Your task to perform on an android device: open app "Truecaller" Image 0: 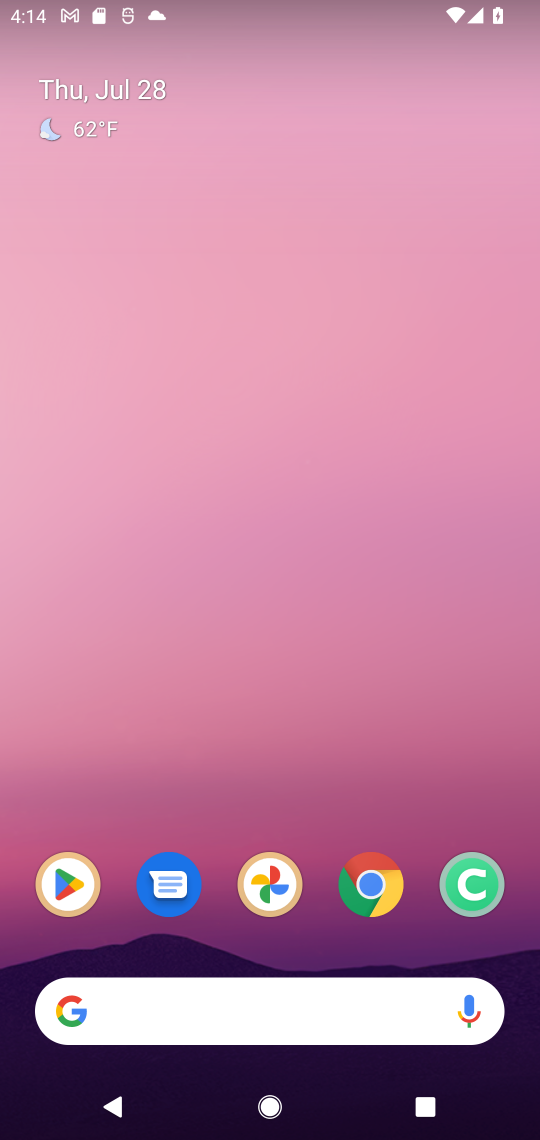
Step 0: click (53, 894)
Your task to perform on an android device: open app "Truecaller" Image 1: 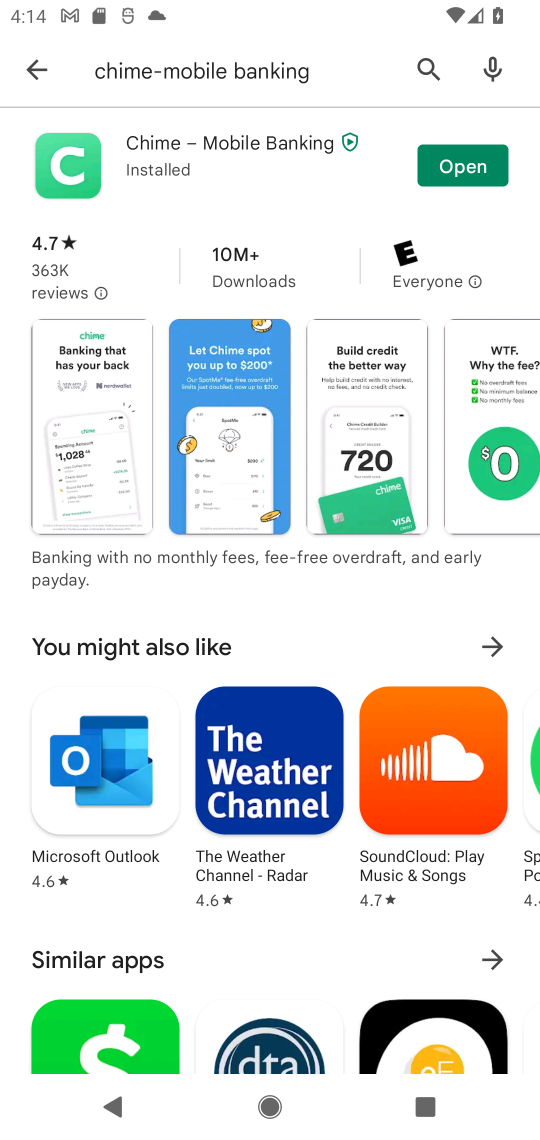
Step 1: click (421, 73)
Your task to perform on an android device: open app "Truecaller" Image 2: 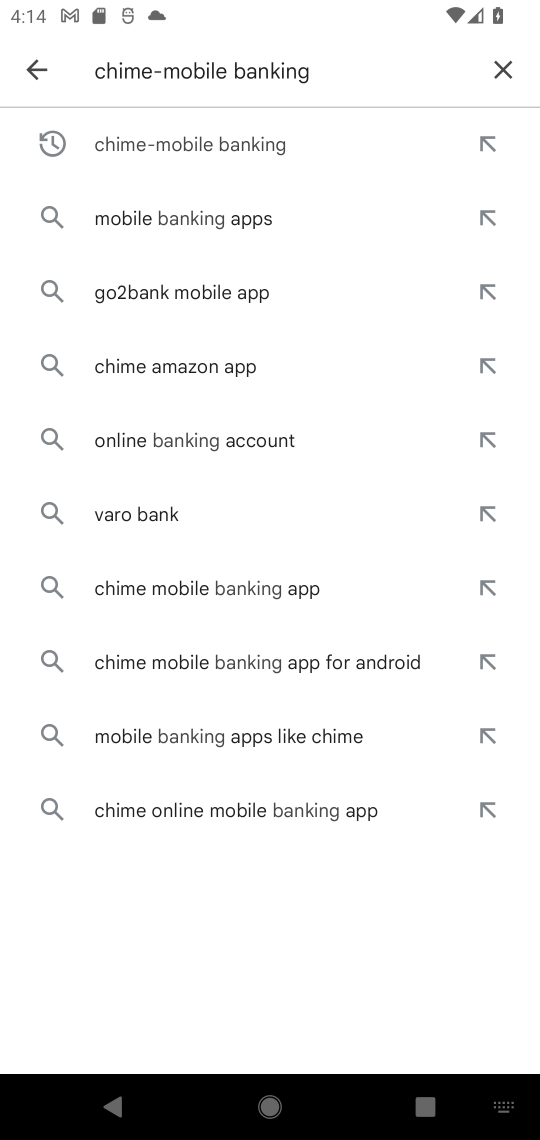
Step 2: click (426, 66)
Your task to perform on an android device: open app "Truecaller" Image 3: 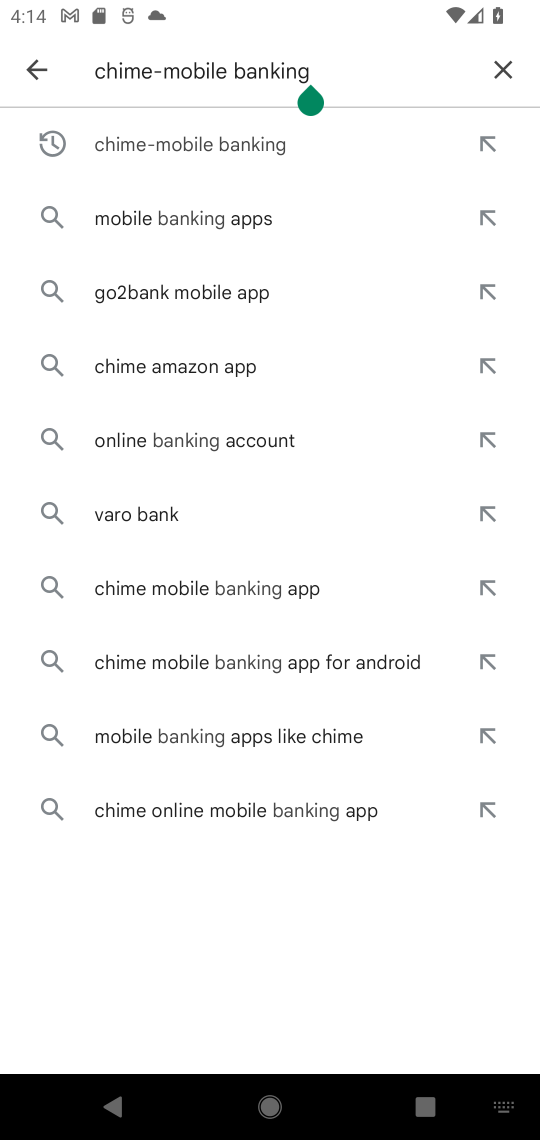
Step 3: click (500, 68)
Your task to perform on an android device: open app "Truecaller" Image 4: 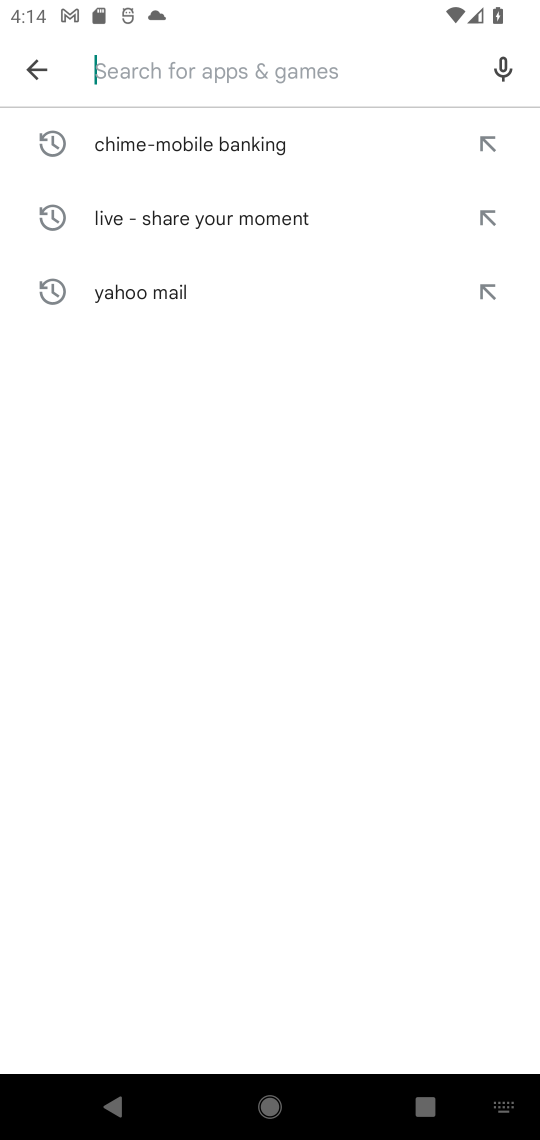
Step 4: type "true caller"
Your task to perform on an android device: open app "Truecaller" Image 5: 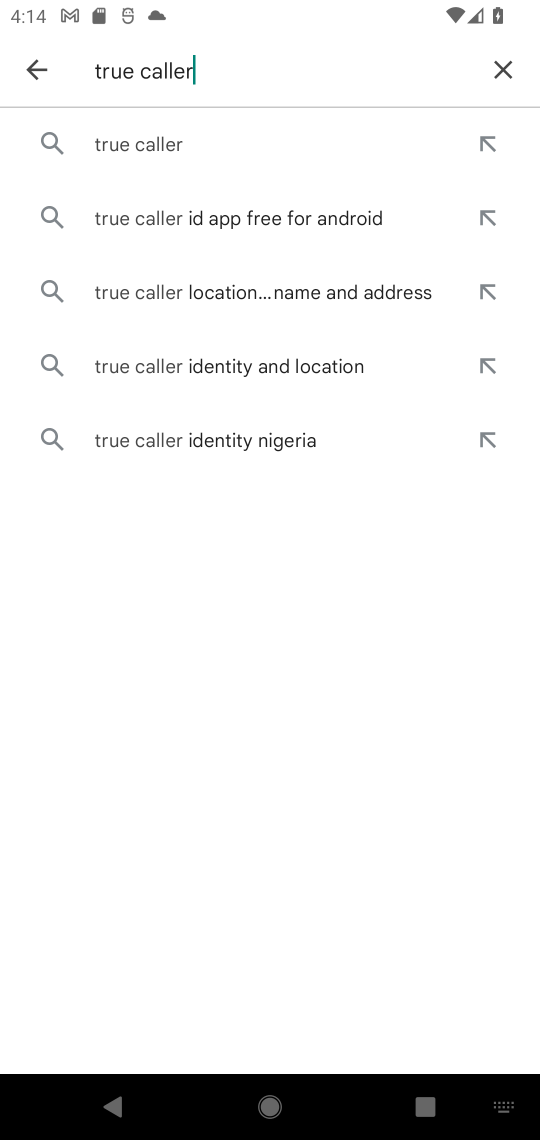
Step 5: click (274, 145)
Your task to perform on an android device: open app "Truecaller" Image 6: 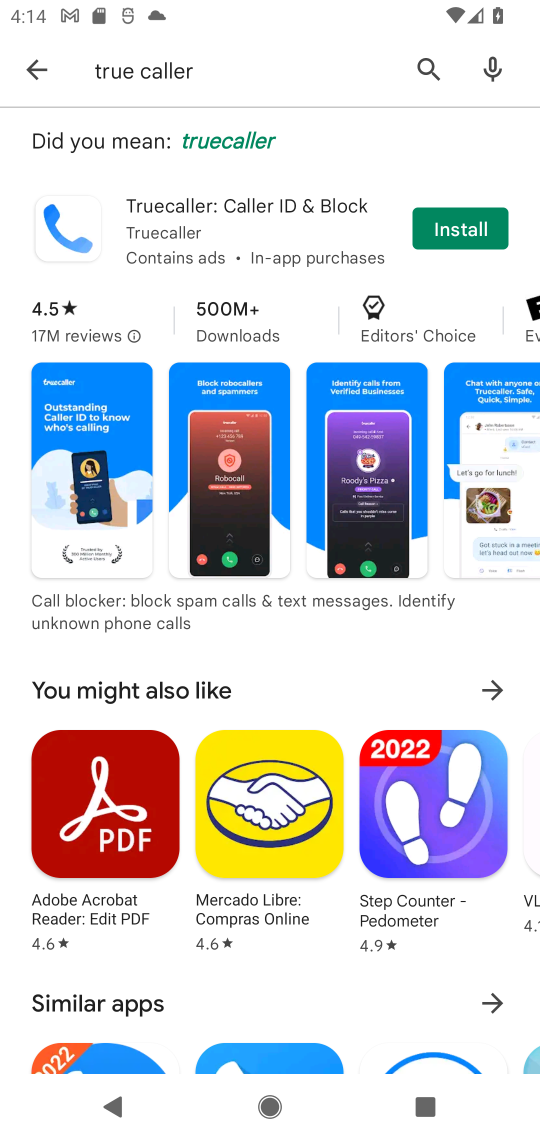
Step 6: click (456, 233)
Your task to perform on an android device: open app "Truecaller" Image 7: 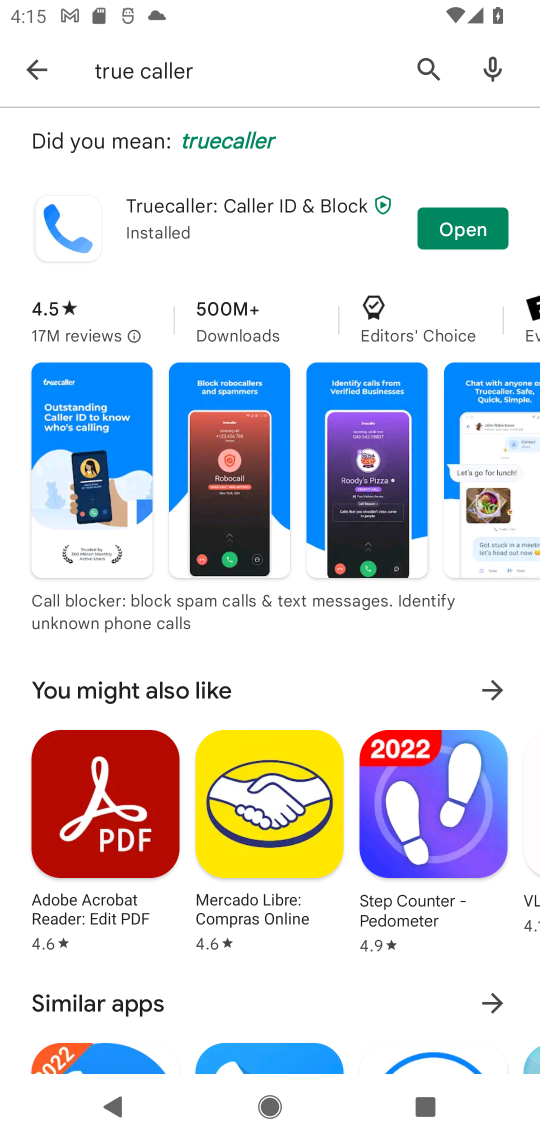
Step 7: click (490, 242)
Your task to perform on an android device: open app "Truecaller" Image 8: 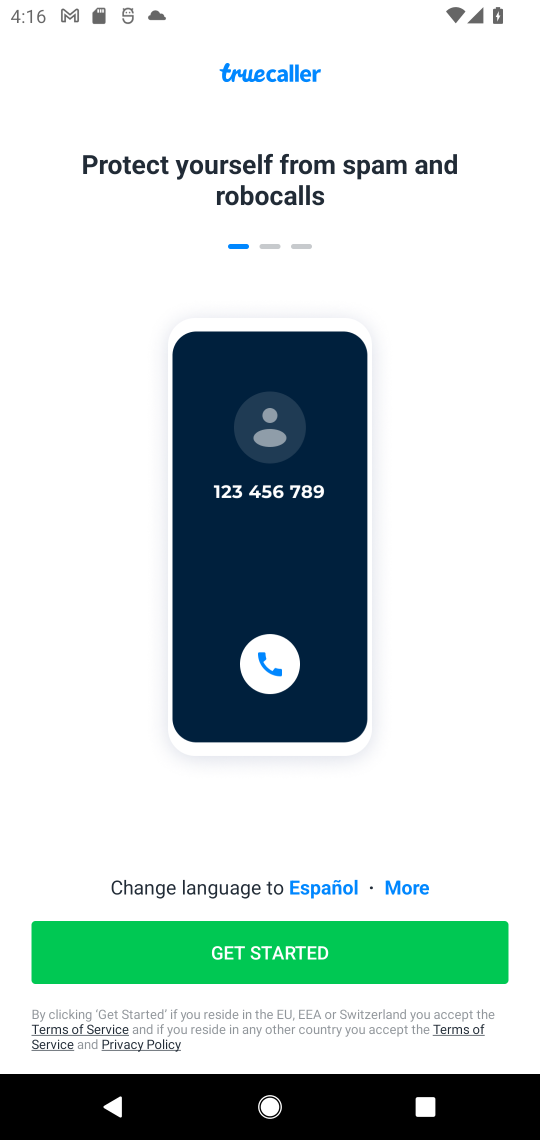
Step 8: task complete